Your task to perform on an android device: remove spam from my inbox in the gmail app Image 0: 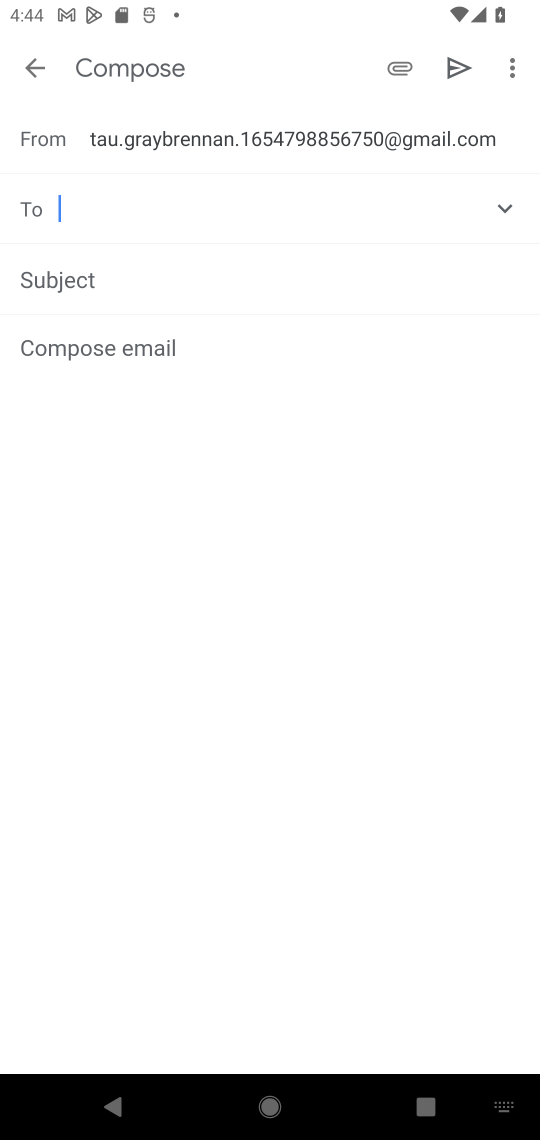
Step 0: press home button
Your task to perform on an android device: remove spam from my inbox in the gmail app Image 1: 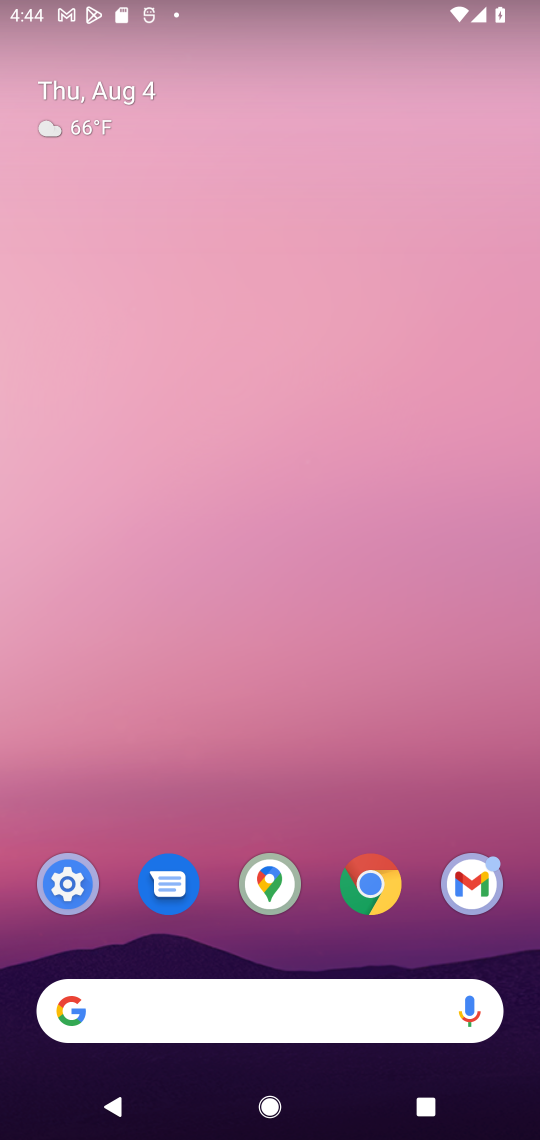
Step 1: drag from (241, 963) to (269, 357)
Your task to perform on an android device: remove spam from my inbox in the gmail app Image 2: 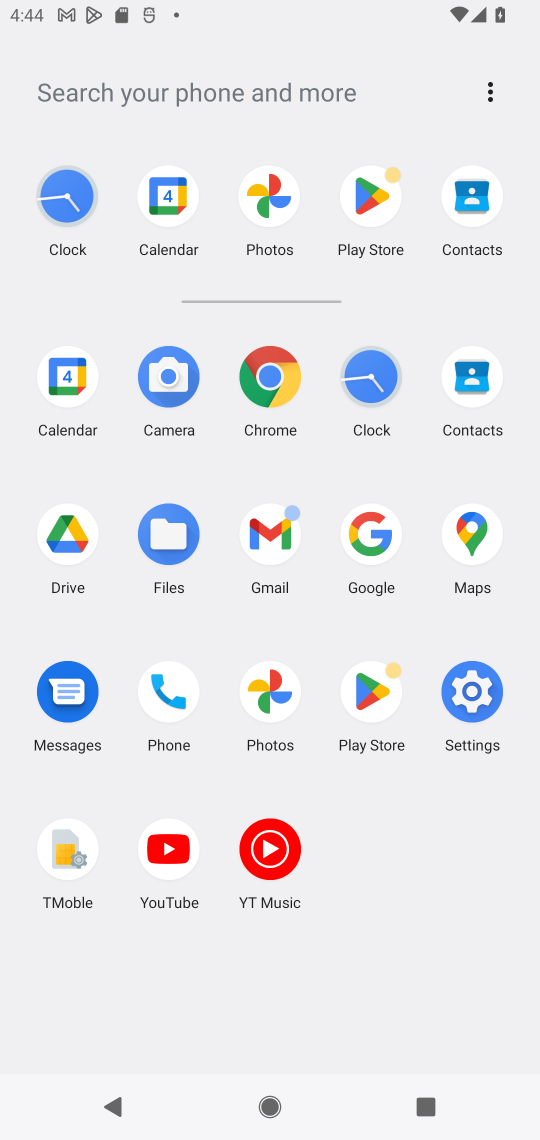
Step 2: click (285, 539)
Your task to perform on an android device: remove spam from my inbox in the gmail app Image 3: 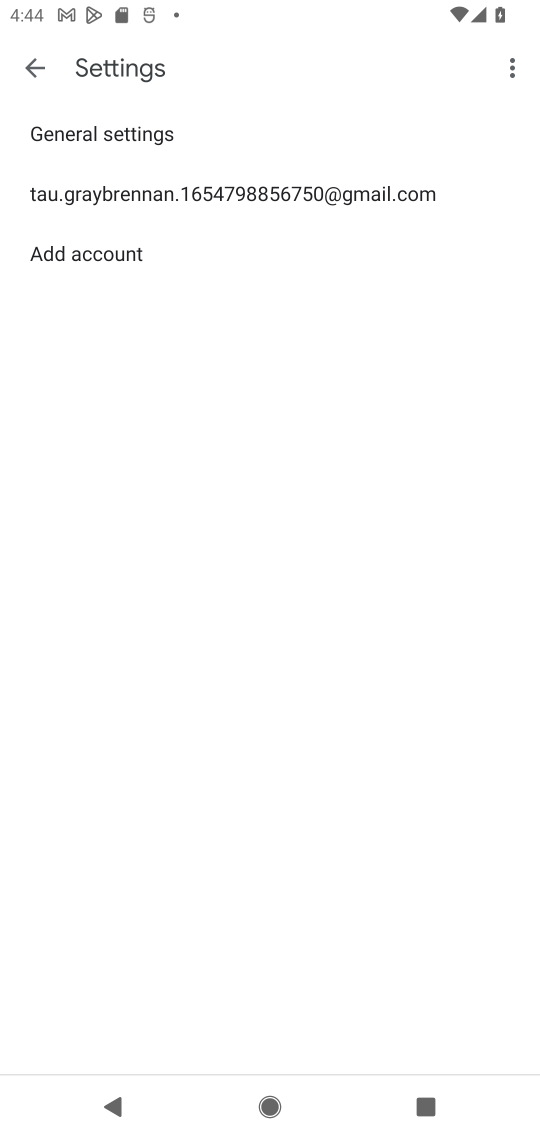
Step 3: task complete